Your task to perform on an android device: turn off location Image 0: 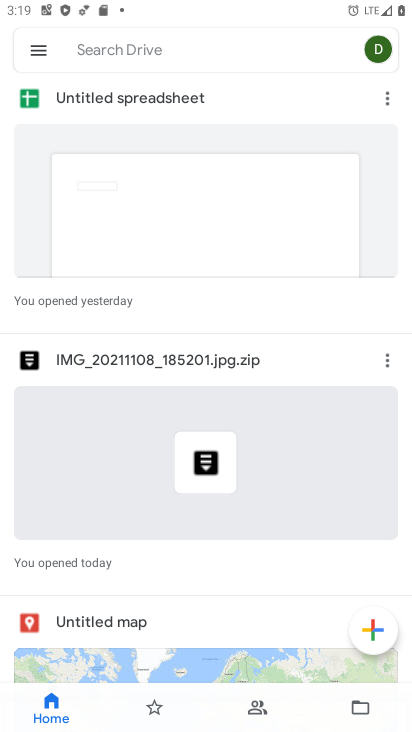
Step 0: press home button
Your task to perform on an android device: turn off location Image 1: 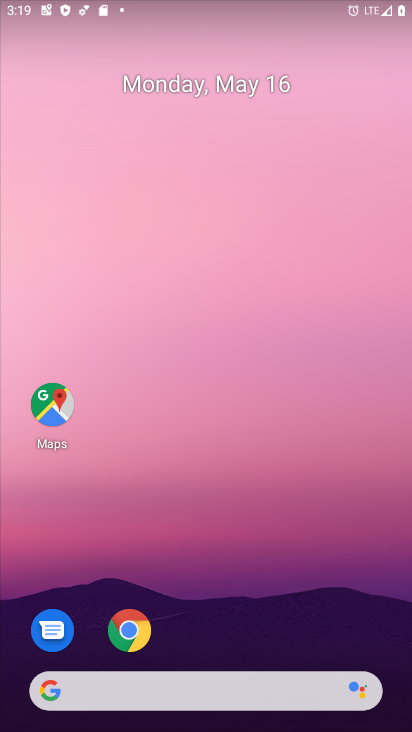
Step 1: drag from (202, 658) to (236, 118)
Your task to perform on an android device: turn off location Image 2: 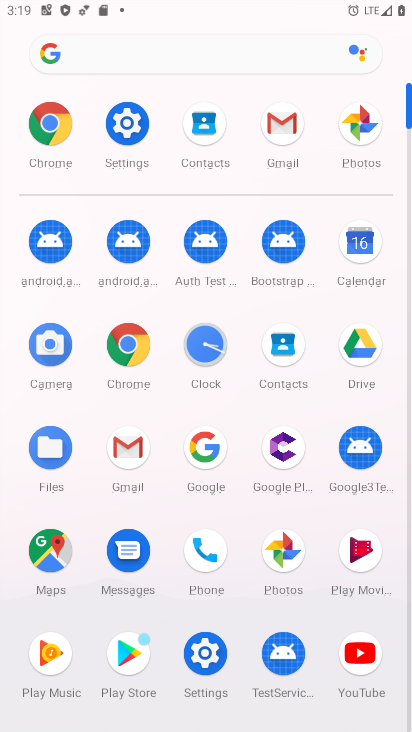
Step 2: click (200, 643)
Your task to perform on an android device: turn off location Image 3: 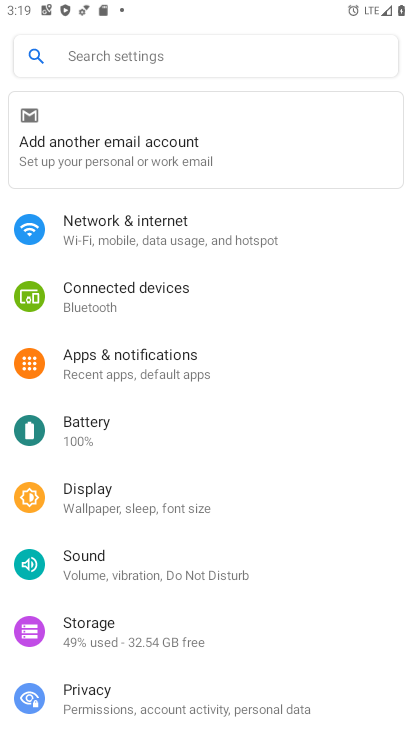
Step 3: drag from (130, 686) to (128, 318)
Your task to perform on an android device: turn off location Image 4: 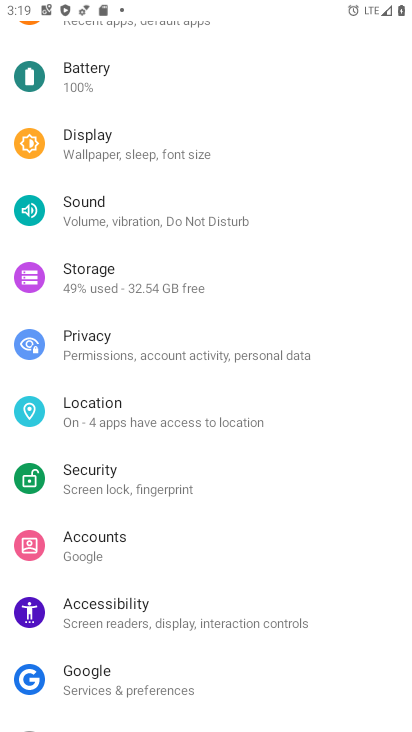
Step 4: click (138, 403)
Your task to perform on an android device: turn off location Image 5: 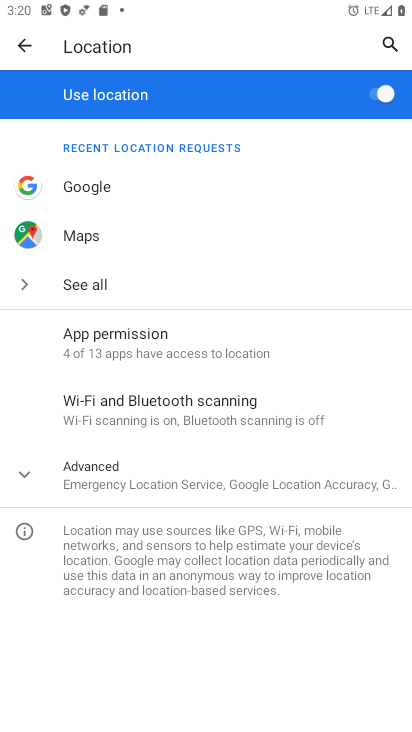
Step 5: click (376, 85)
Your task to perform on an android device: turn off location Image 6: 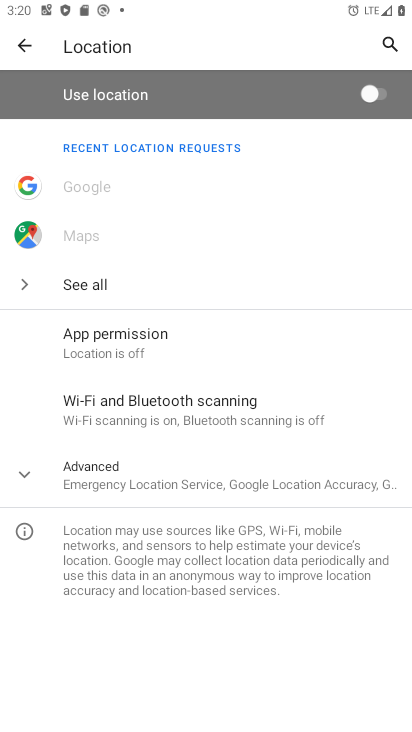
Step 6: task complete